Your task to perform on an android device: Go to display settings Image 0: 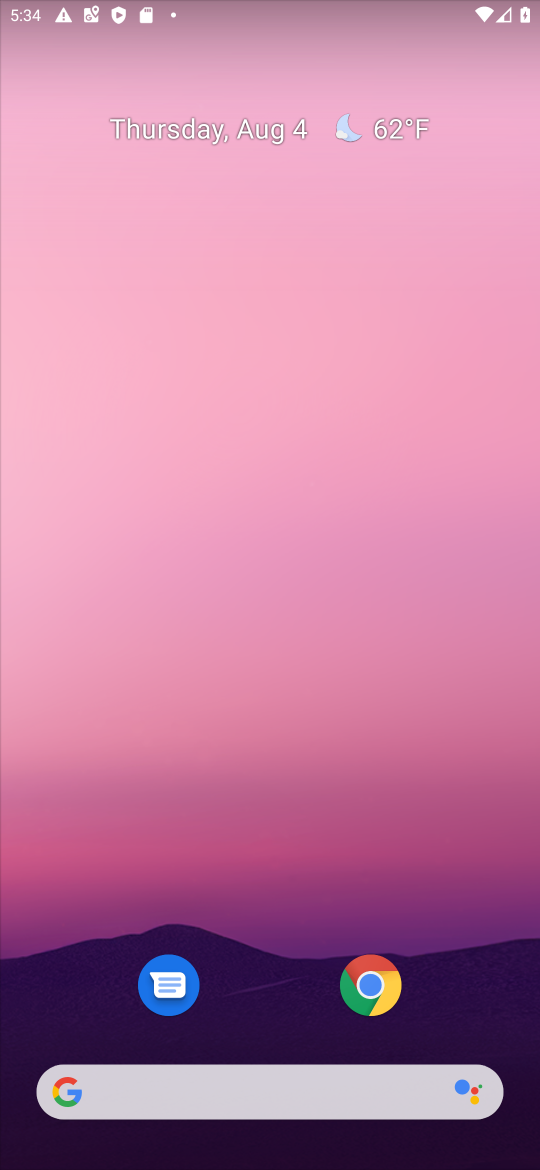
Step 0: drag from (236, 1062) to (245, 443)
Your task to perform on an android device: Go to display settings Image 1: 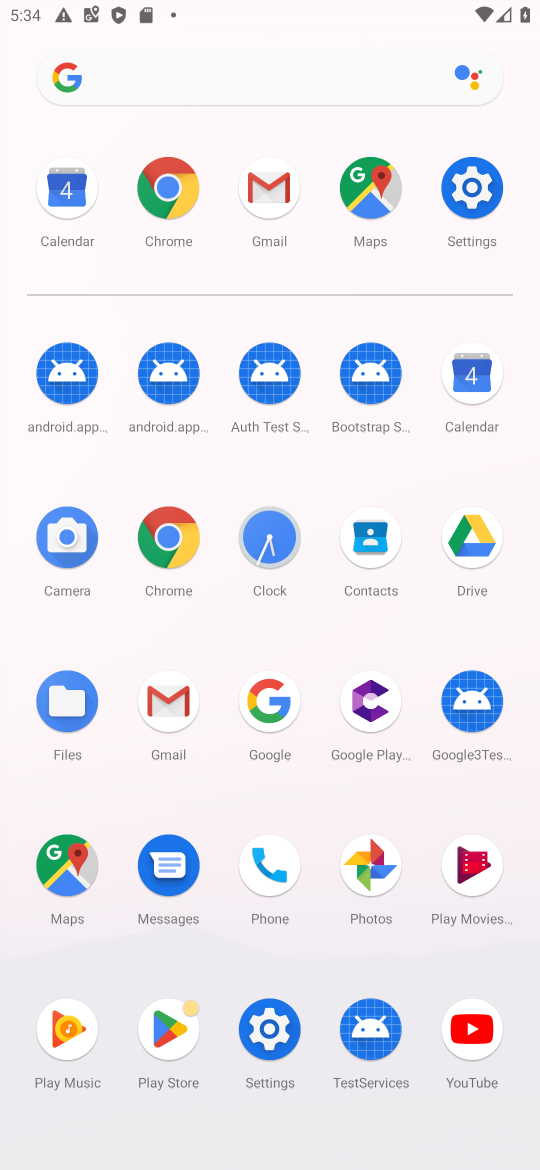
Step 1: click (265, 1020)
Your task to perform on an android device: Go to display settings Image 2: 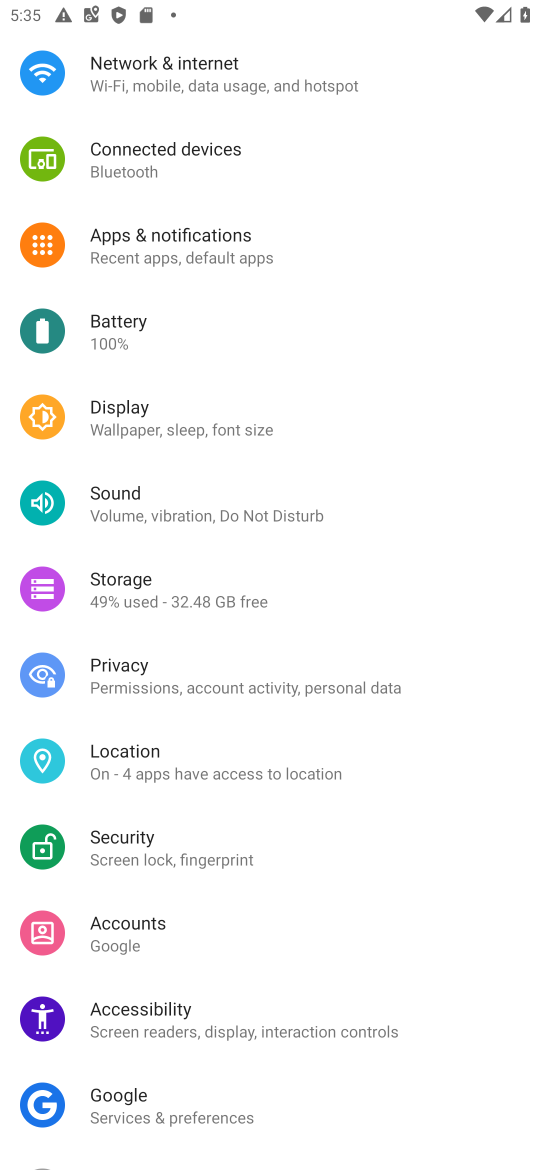
Step 2: click (140, 424)
Your task to perform on an android device: Go to display settings Image 3: 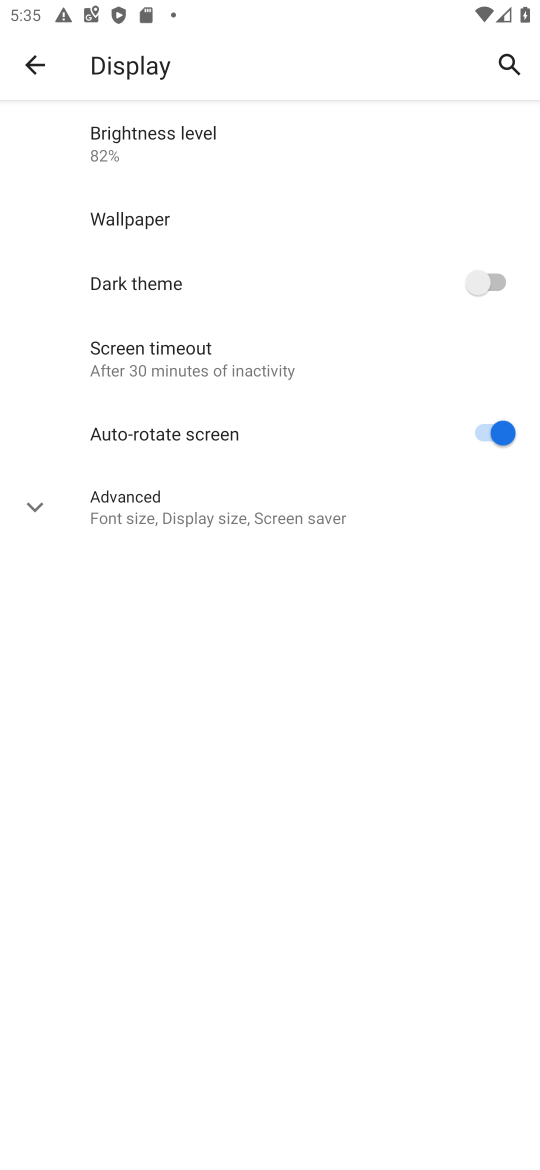
Step 3: task complete